Your task to perform on an android device: allow notifications from all sites in the chrome app Image 0: 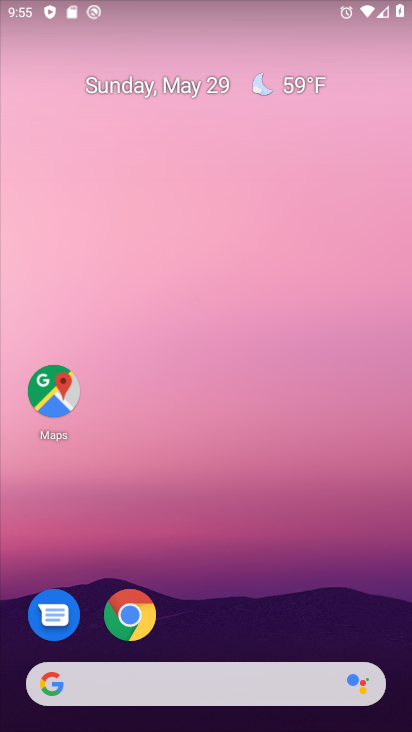
Step 0: drag from (215, 622) to (259, 154)
Your task to perform on an android device: allow notifications from all sites in the chrome app Image 1: 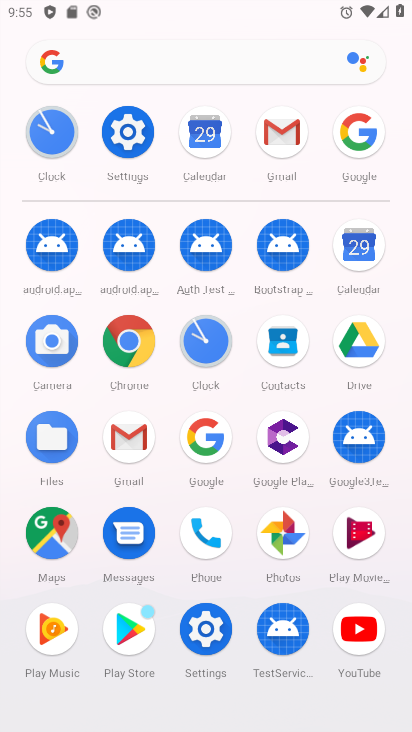
Step 1: click (137, 340)
Your task to perform on an android device: allow notifications from all sites in the chrome app Image 2: 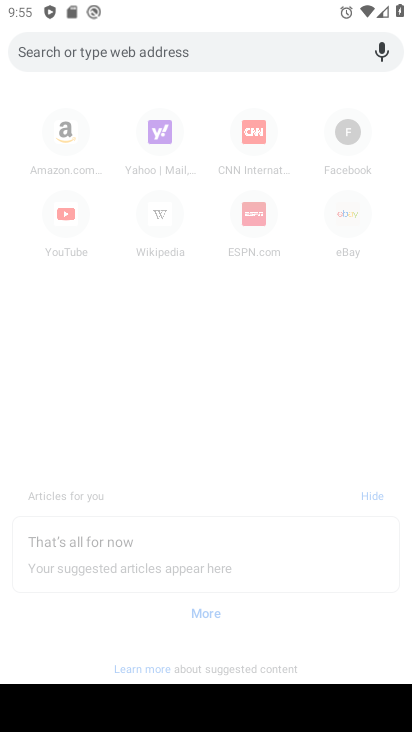
Step 2: click (283, 329)
Your task to perform on an android device: allow notifications from all sites in the chrome app Image 3: 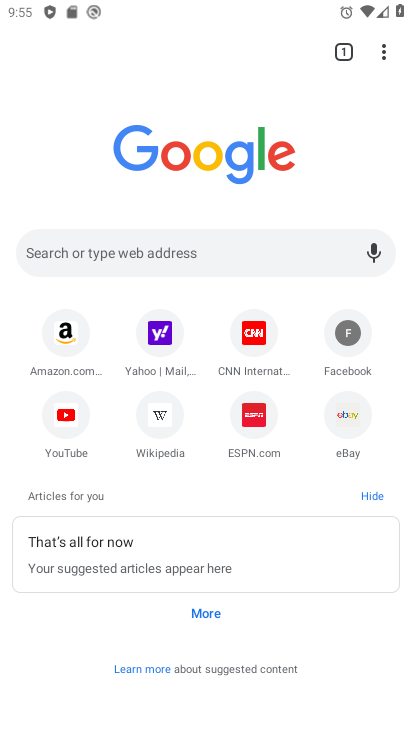
Step 3: click (384, 63)
Your task to perform on an android device: allow notifications from all sites in the chrome app Image 4: 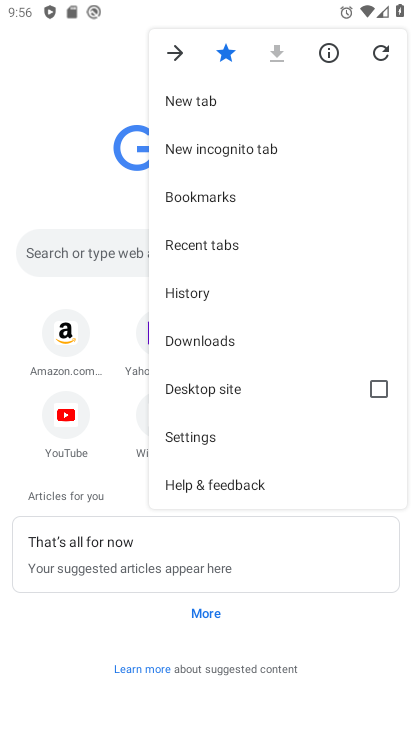
Step 4: click (237, 442)
Your task to perform on an android device: allow notifications from all sites in the chrome app Image 5: 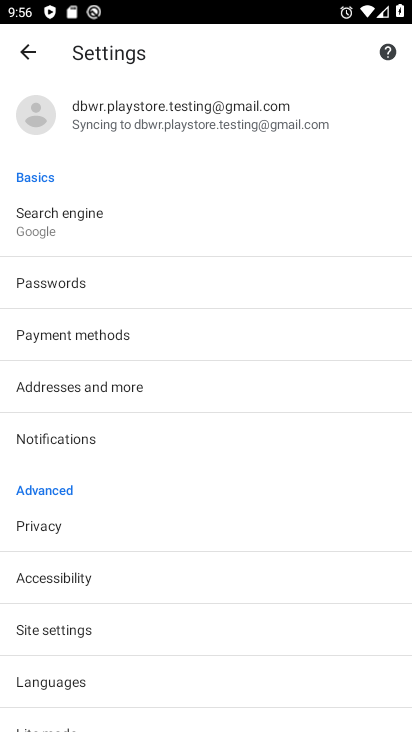
Step 5: click (81, 632)
Your task to perform on an android device: allow notifications from all sites in the chrome app Image 6: 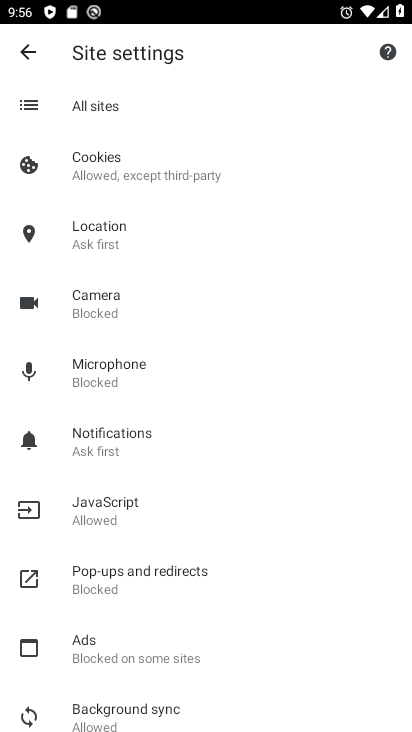
Step 6: drag from (119, 438) to (129, 339)
Your task to perform on an android device: allow notifications from all sites in the chrome app Image 7: 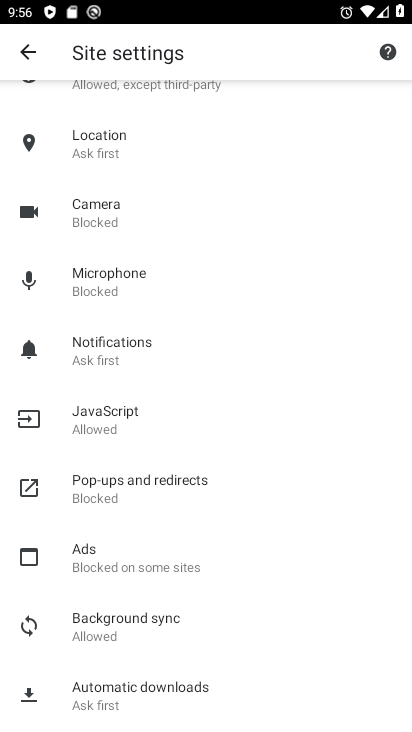
Step 7: click (126, 348)
Your task to perform on an android device: allow notifications from all sites in the chrome app Image 8: 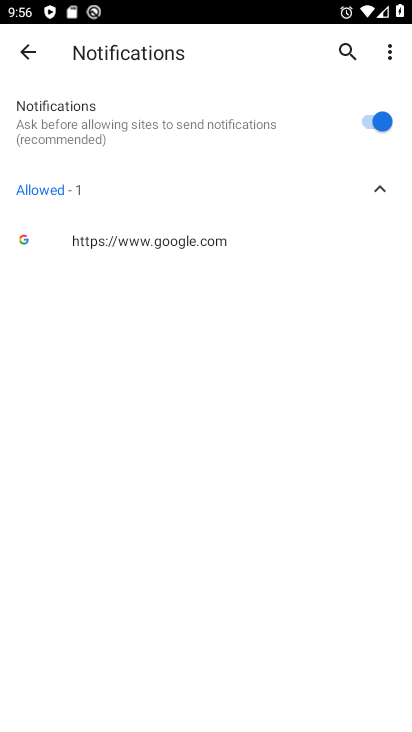
Step 8: task complete